Your task to perform on an android device: turn on the 24-hour format for clock Image 0: 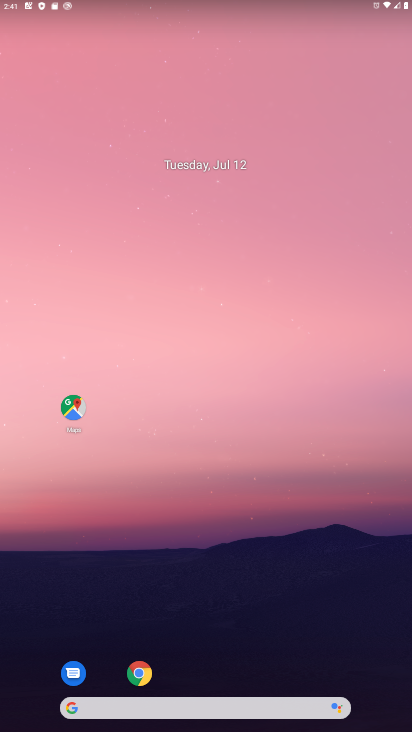
Step 0: drag from (281, 652) to (274, 209)
Your task to perform on an android device: turn on the 24-hour format for clock Image 1: 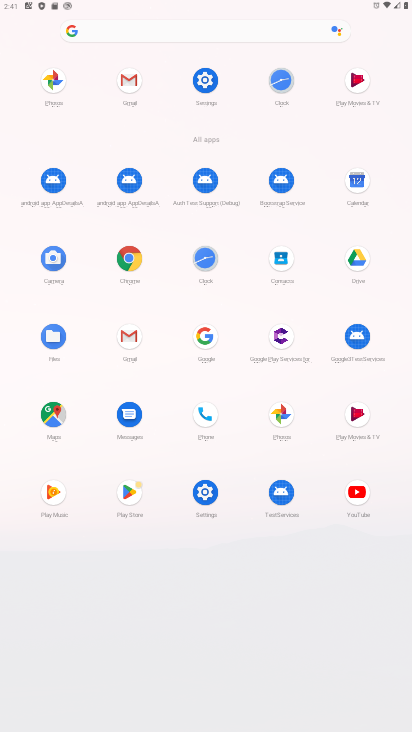
Step 1: click (286, 78)
Your task to perform on an android device: turn on the 24-hour format for clock Image 2: 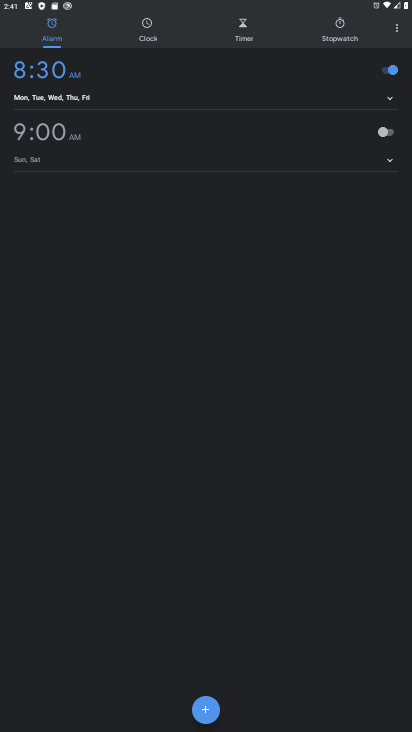
Step 2: click (397, 32)
Your task to perform on an android device: turn on the 24-hour format for clock Image 3: 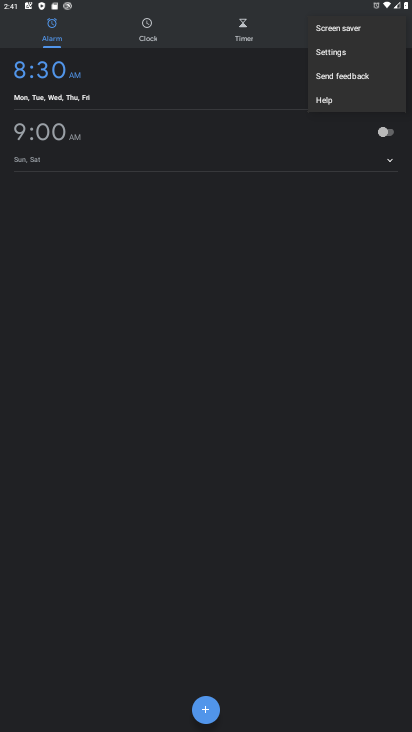
Step 3: click (324, 59)
Your task to perform on an android device: turn on the 24-hour format for clock Image 4: 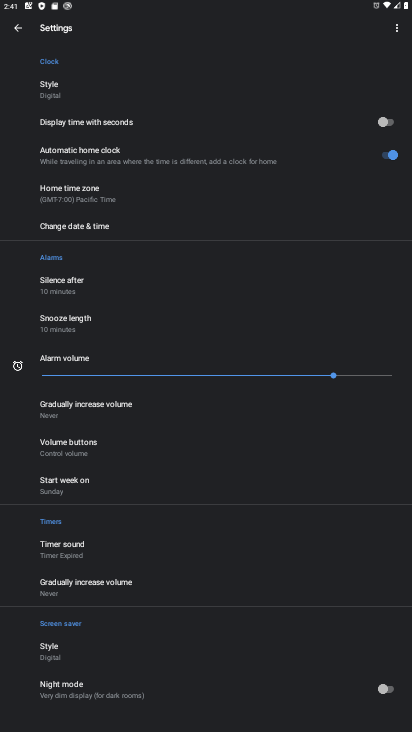
Step 4: drag from (173, 642) to (263, 376)
Your task to perform on an android device: turn on the 24-hour format for clock Image 5: 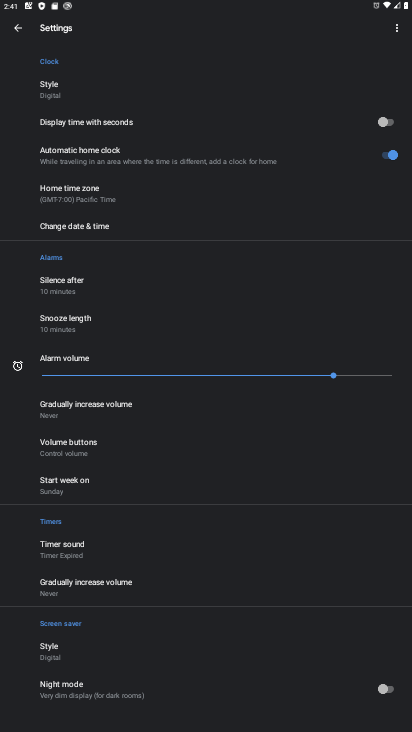
Step 5: click (102, 223)
Your task to perform on an android device: turn on the 24-hour format for clock Image 6: 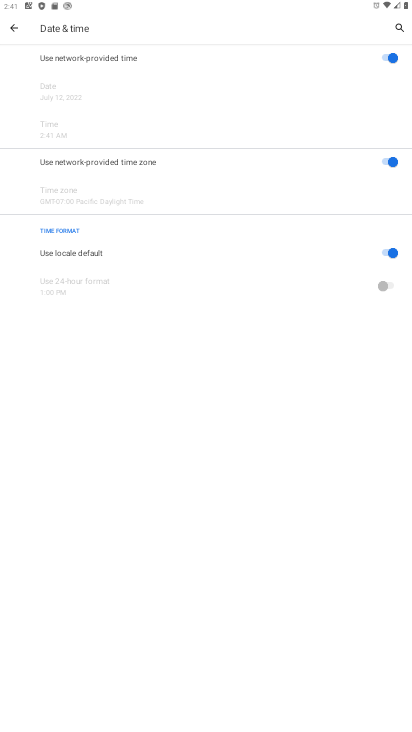
Step 6: click (390, 287)
Your task to perform on an android device: turn on the 24-hour format for clock Image 7: 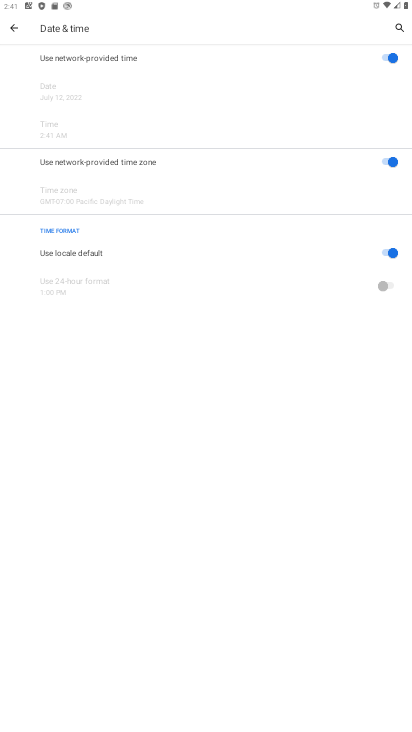
Step 7: click (386, 287)
Your task to perform on an android device: turn on the 24-hour format for clock Image 8: 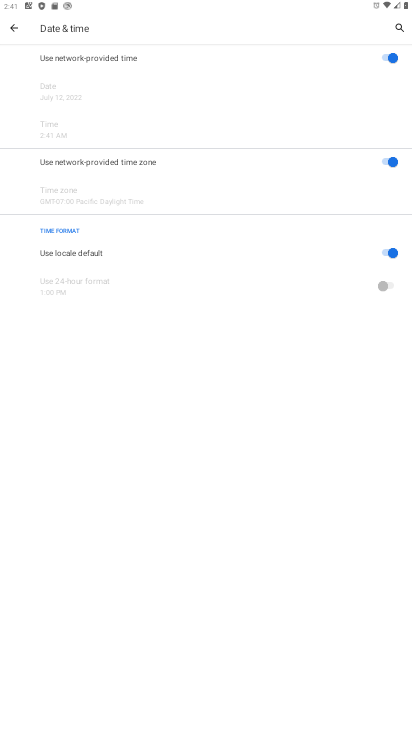
Step 8: click (396, 242)
Your task to perform on an android device: turn on the 24-hour format for clock Image 9: 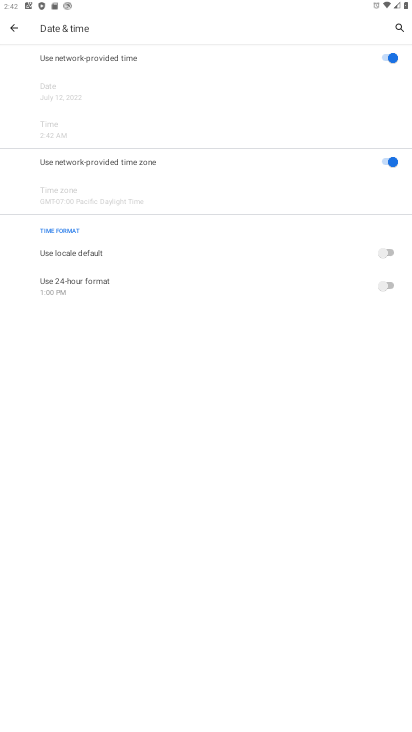
Step 9: click (380, 289)
Your task to perform on an android device: turn on the 24-hour format for clock Image 10: 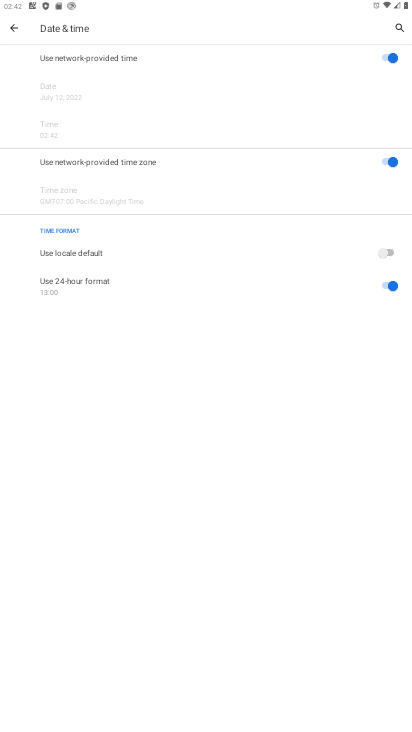
Step 10: task complete